Your task to perform on an android device: turn off airplane mode Image 0: 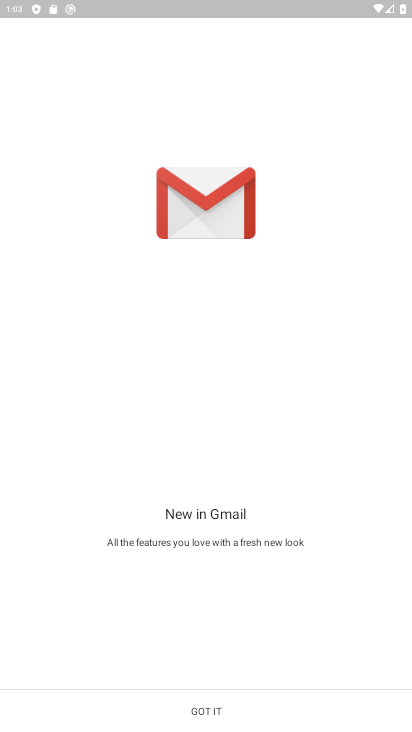
Step 0: press home button
Your task to perform on an android device: turn off airplane mode Image 1: 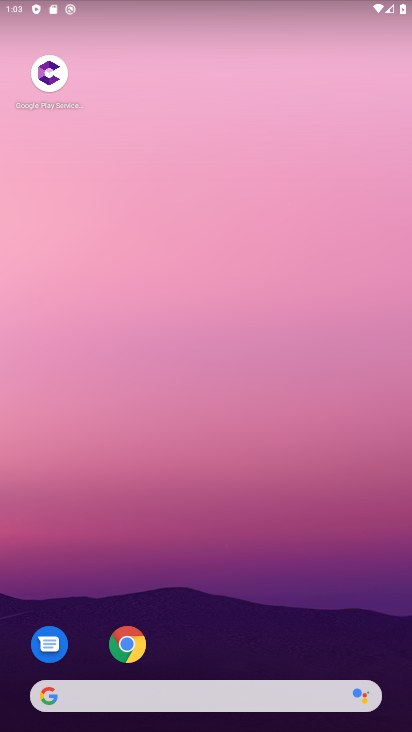
Step 1: drag from (214, 699) to (181, 102)
Your task to perform on an android device: turn off airplane mode Image 2: 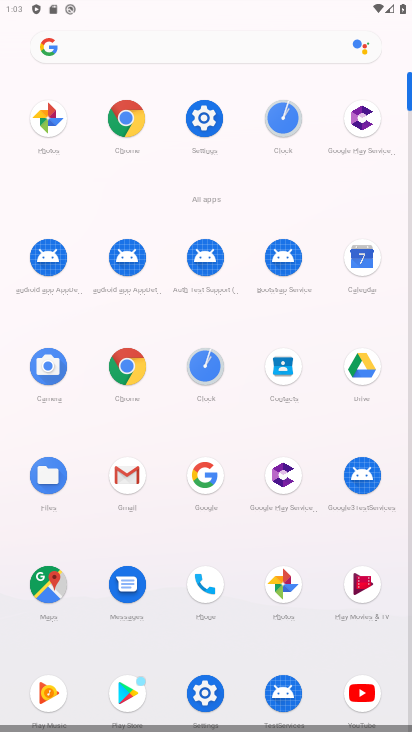
Step 2: click (205, 122)
Your task to perform on an android device: turn off airplane mode Image 3: 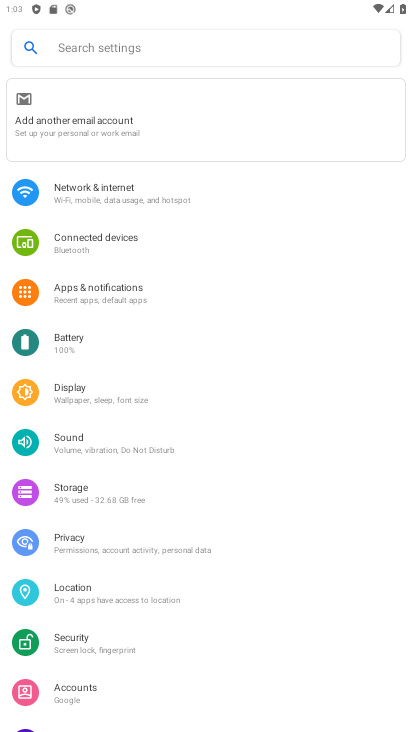
Step 3: click (146, 200)
Your task to perform on an android device: turn off airplane mode Image 4: 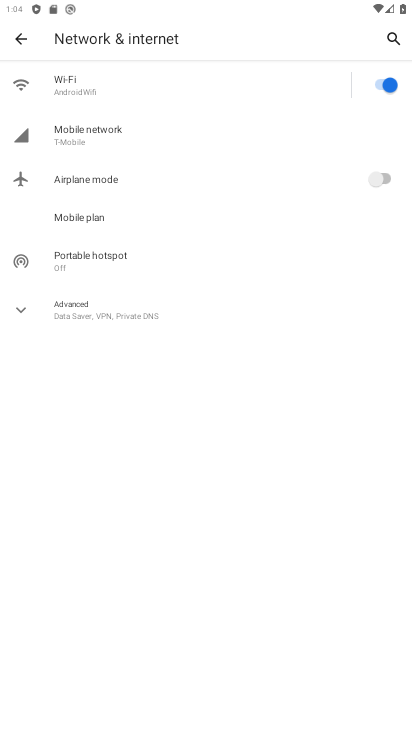
Step 4: task complete